Your task to perform on an android device: Open CNN.com Image 0: 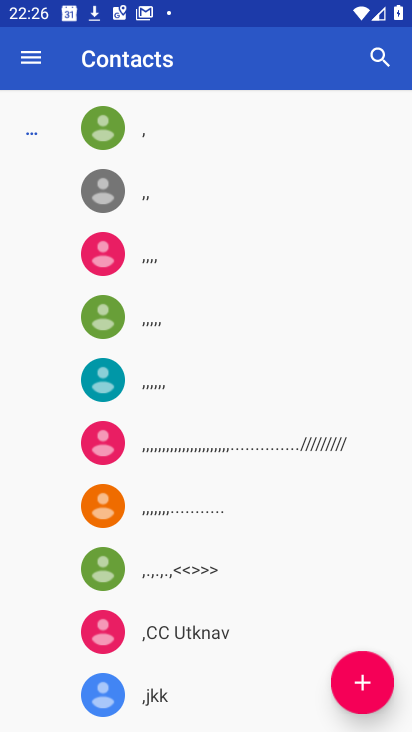
Step 0: press home button
Your task to perform on an android device: Open CNN.com Image 1: 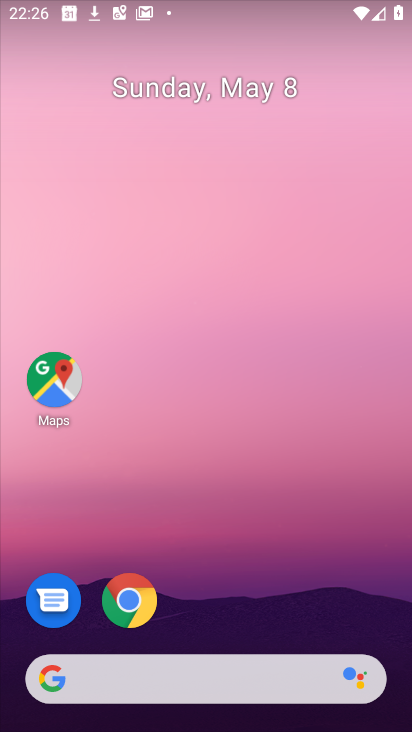
Step 1: drag from (274, 712) to (244, 296)
Your task to perform on an android device: Open CNN.com Image 2: 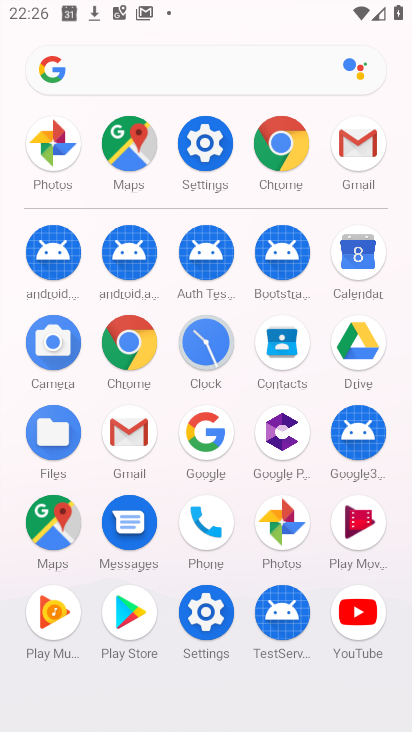
Step 2: click (288, 161)
Your task to perform on an android device: Open CNN.com Image 3: 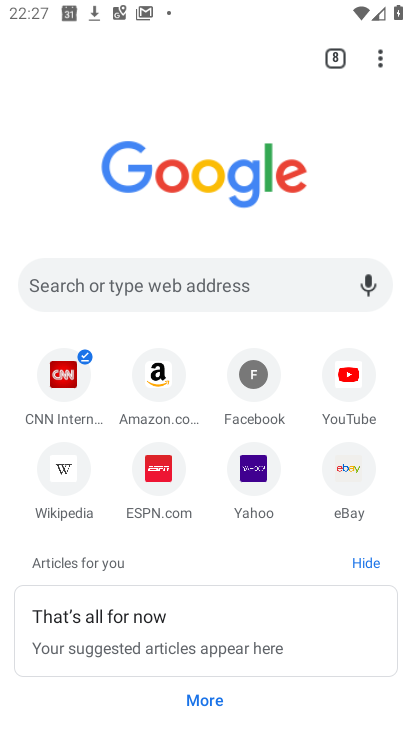
Step 3: click (68, 385)
Your task to perform on an android device: Open CNN.com Image 4: 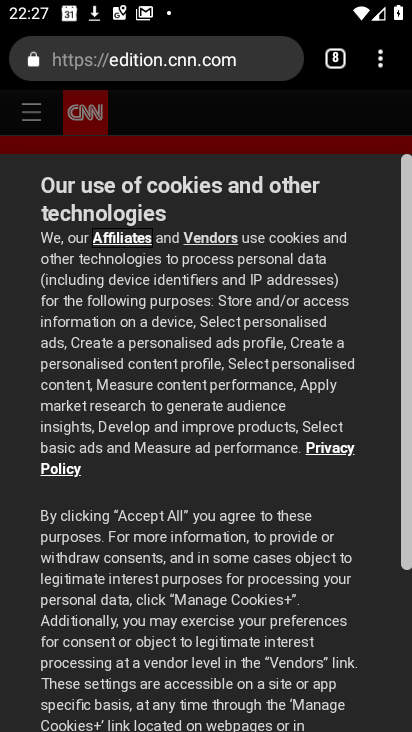
Step 4: drag from (407, 455) to (377, 663)
Your task to perform on an android device: Open CNN.com Image 5: 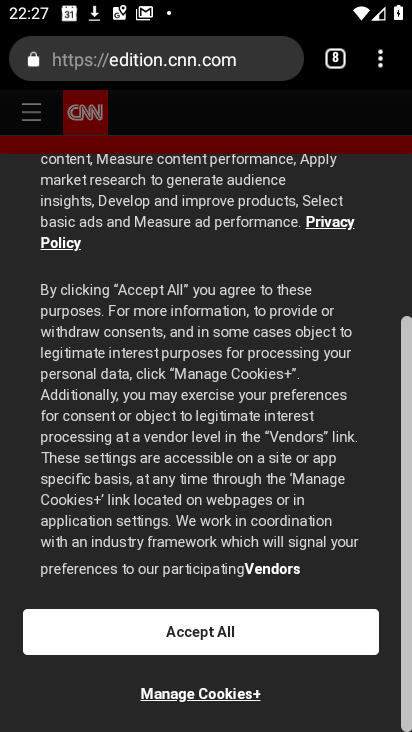
Step 5: click (214, 631)
Your task to perform on an android device: Open CNN.com Image 6: 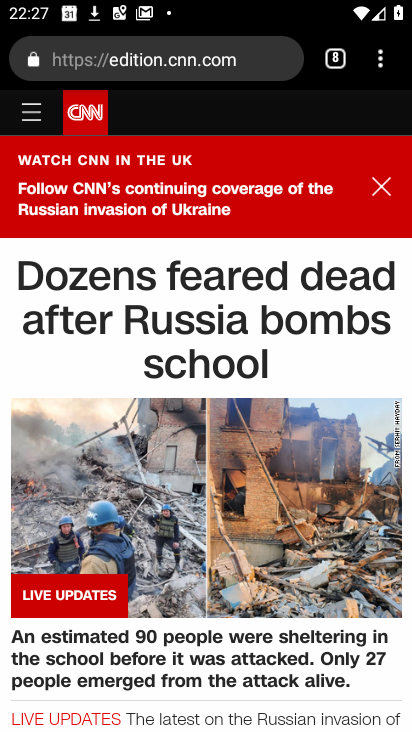
Step 6: task complete